Your task to perform on an android device: Open Youtube and go to "Your channel" Image 0: 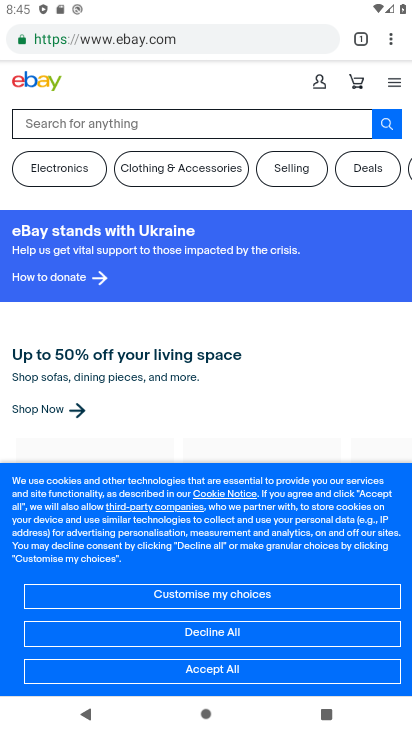
Step 0: press home button
Your task to perform on an android device: Open Youtube and go to "Your channel" Image 1: 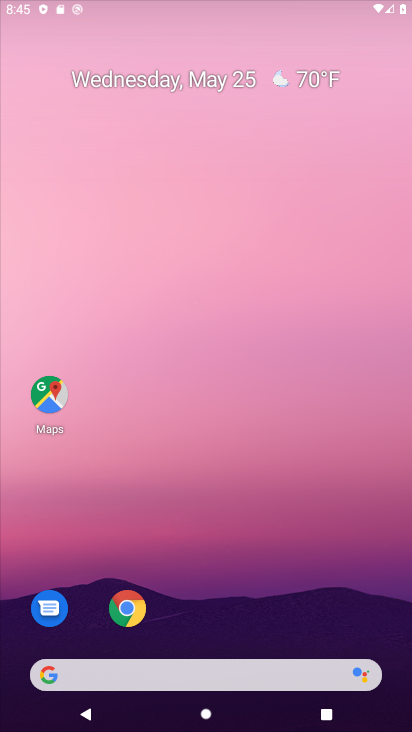
Step 1: drag from (293, 587) to (236, 41)
Your task to perform on an android device: Open Youtube and go to "Your channel" Image 2: 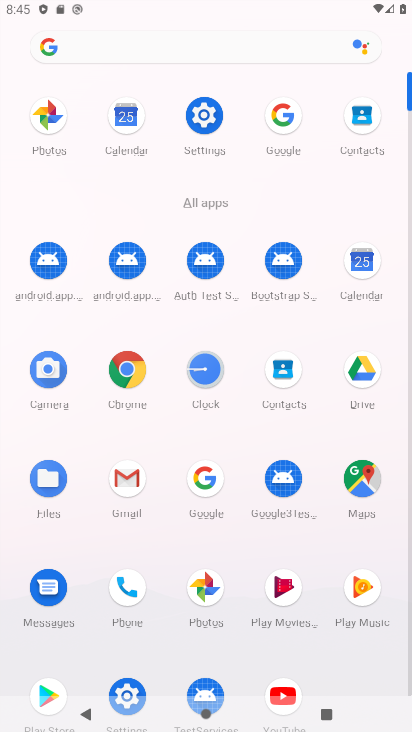
Step 2: click (281, 680)
Your task to perform on an android device: Open Youtube and go to "Your channel" Image 3: 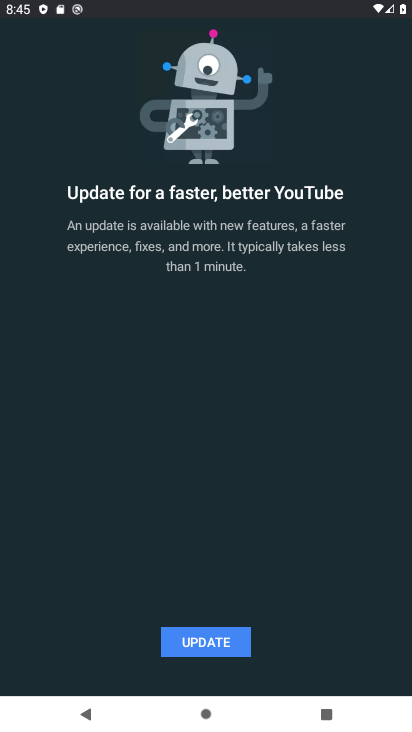
Step 3: click (208, 645)
Your task to perform on an android device: Open Youtube and go to "Your channel" Image 4: 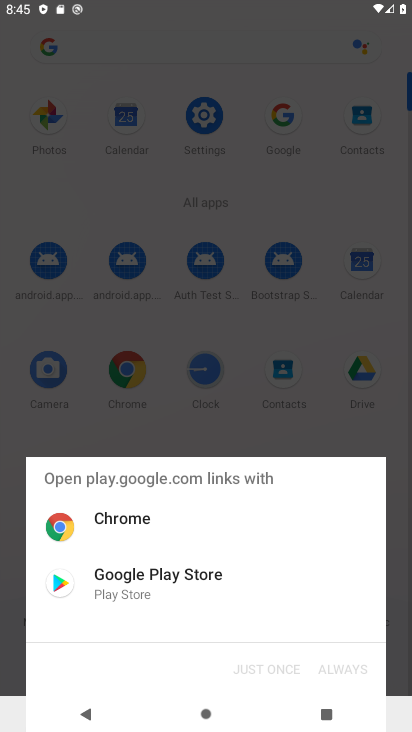
Step 4: click (184, 577)
Your task to perform on an android device: Open Youtube and go to "Your channel" Image 5: 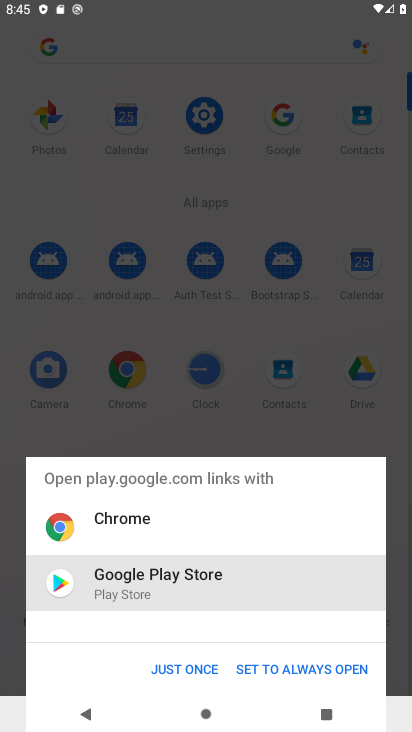
Step 5: click (176, 671)
Your task to perform on an android device: Open Youtube and go to "Your channel" Image 6: 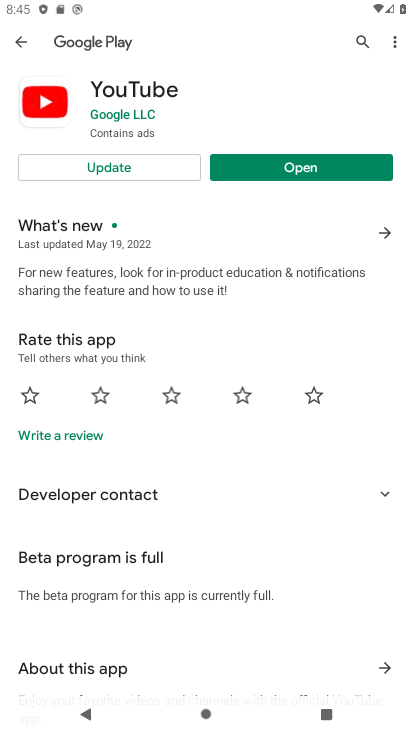
Step 6: click (121, 169)
Your task to perform on an android device: Open Youtube and go to "Your channel" Image 7: 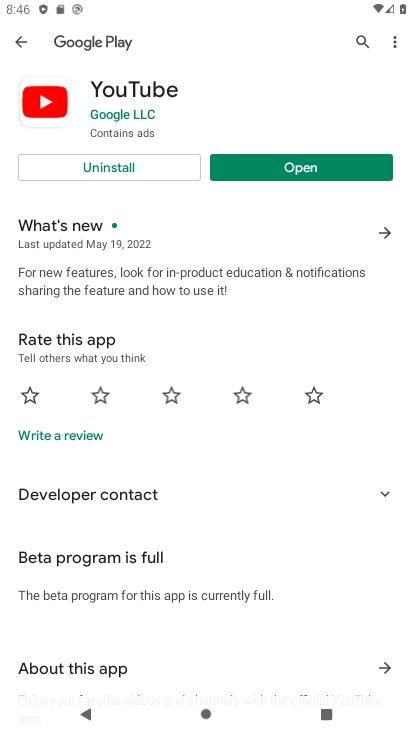
Step 7: click (263, 162)
Your task to perform on an android device: Open Youtube and go to "Your channel" Image 8: 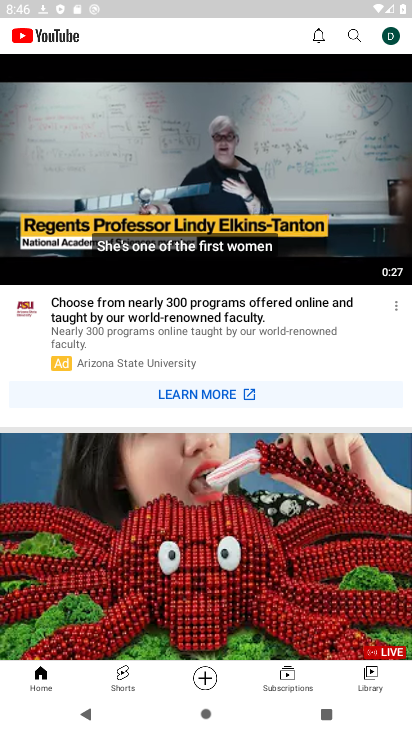
Step 8: click (390, 39)
Your task to perform on an android device: Open Youtube and go to "Your channel" Image 9: 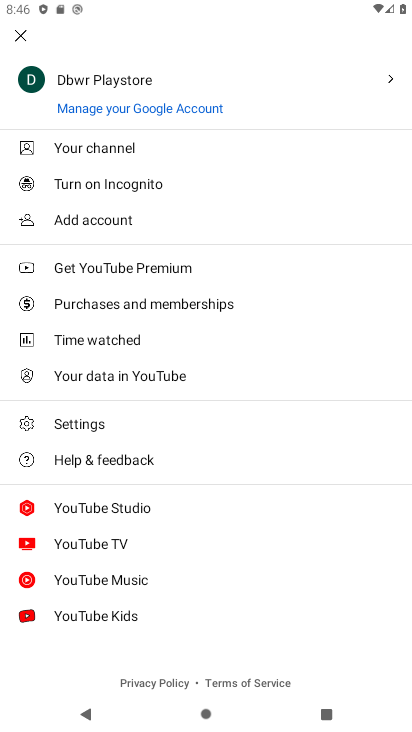
Step 9: click (98, 150)
Your task to perform on an android device: Open Youtube and go to "Your channel" Image 10: 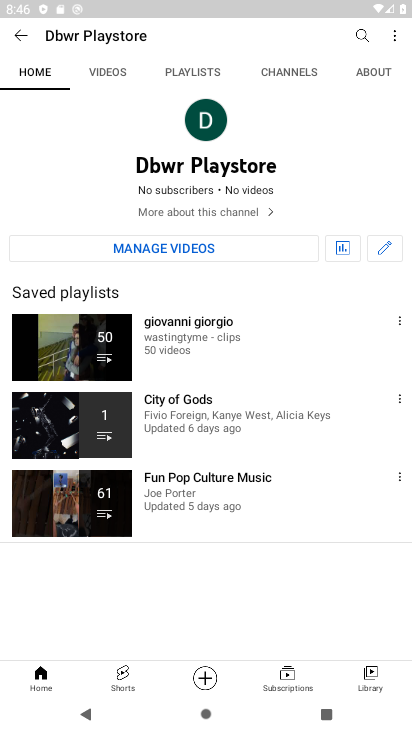
Step 10: task complete